Your task to perform on an android device: Open eBay Image 0: 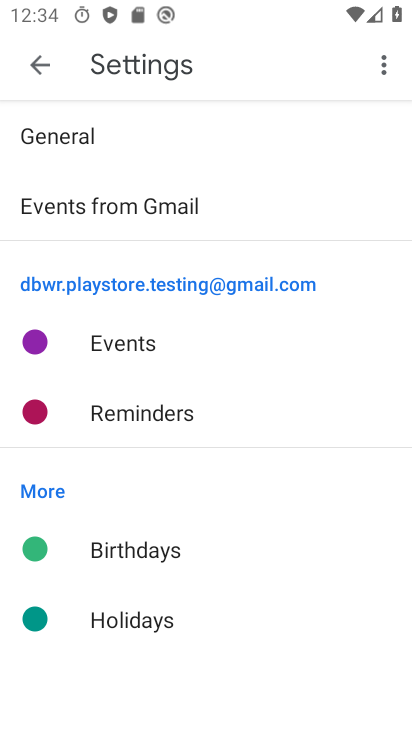
Step 0: press home button
Your task to perform on an android device: Open eBay Image 1: 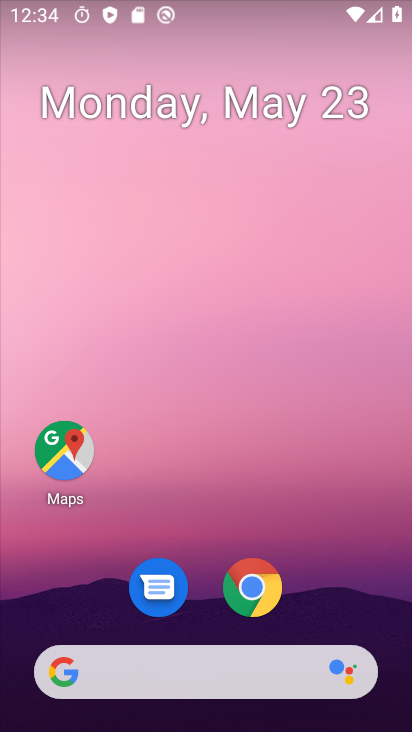
Step 1: click (259, 580)
Your task to perform on an android device: Open eBay Image 2: 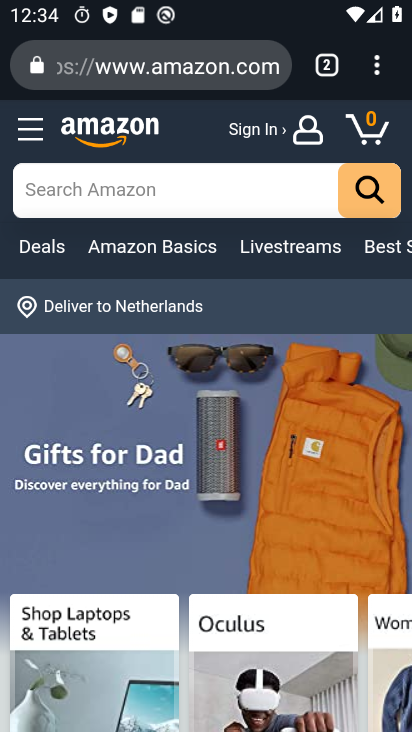
Step 2: click (322, 72)
Your task to perform on an android device: Open eBay Image 3: 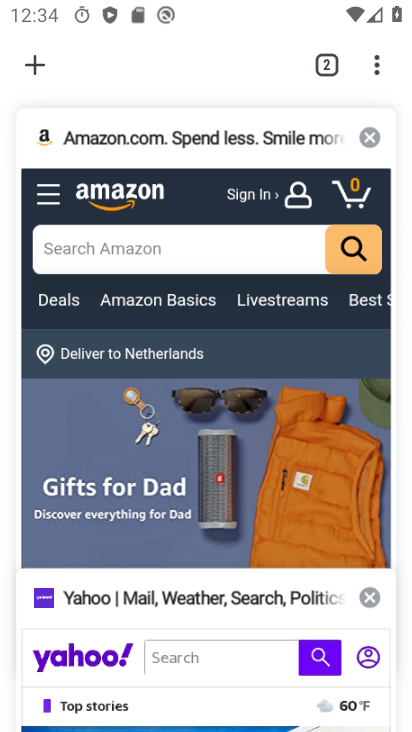
Step 3: click (38, 68)
Your task to perform on an android device: Open eBay Image 4: 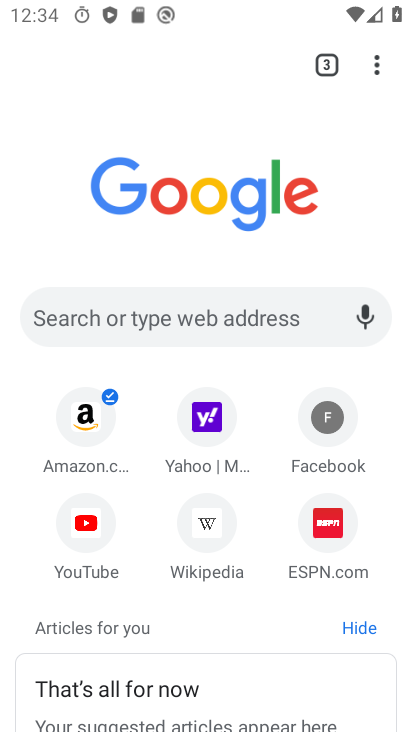
Step 4: click (150, 310)
Your task to perform on an android device: Open eBay Image 5: 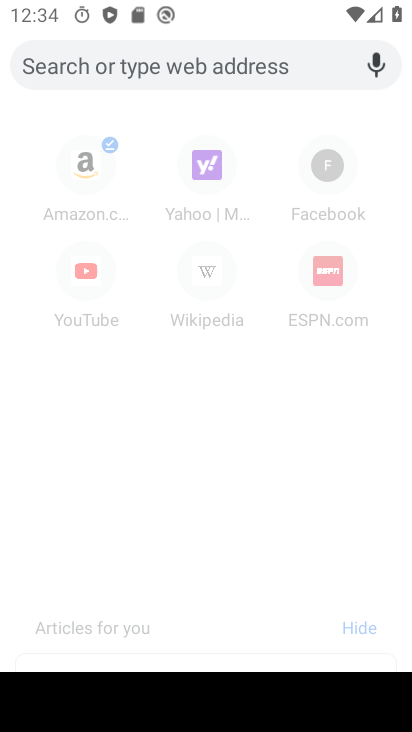
Step 5: type "ebay"
Your task to perform on an android device: Open eBay Image 6: 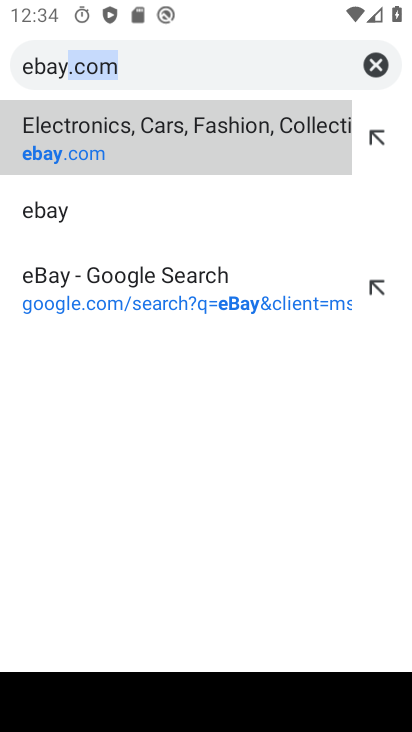
Step 6: click (138, 151)
Your task to perform on an android device: Open eBay Image 7: 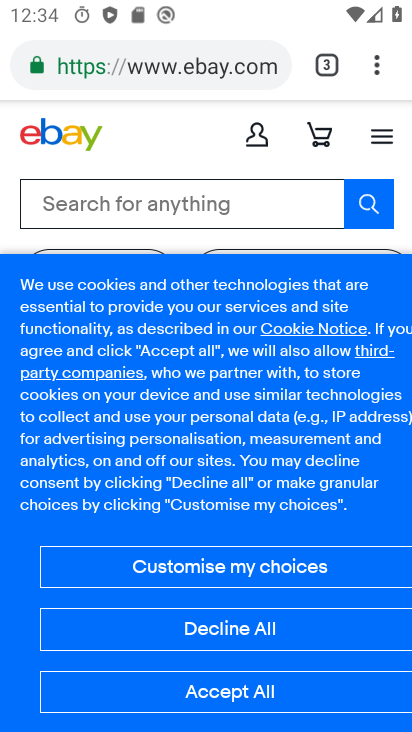
Step 7: task complete